Your task to perform on an android device: toggle show notifications on the lock screen Image 0: 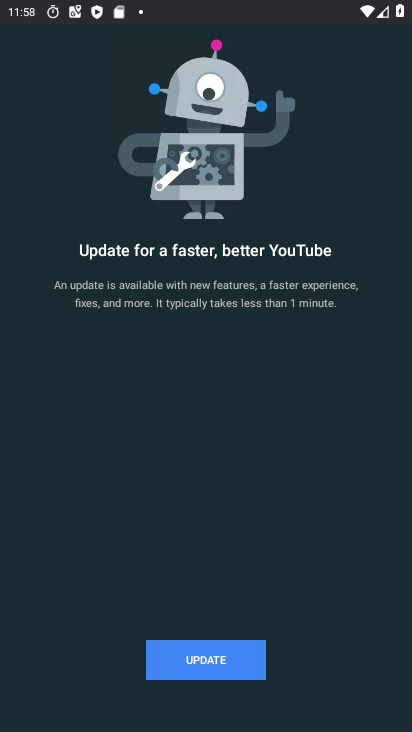
Step 0: press back button
Your task to perform on an android device: toggle show notifications on the lock screen Image 1: 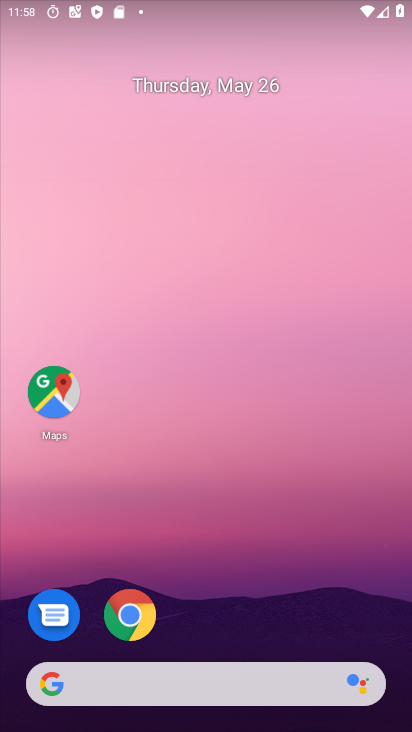
Step 1: drag from (268, 641) to (210, 210)
Your task to perform on an android device: toggle show notifications on the lock screen Image 2: 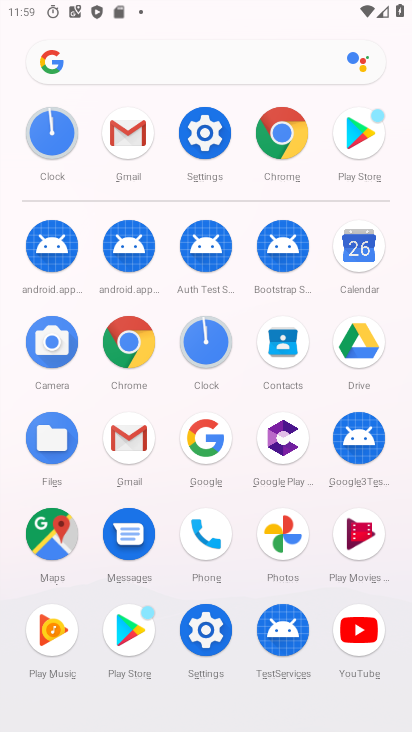
Step 2: click (216, 147)
Your task to perform on an android device: toggle show notifications on the lock screen Image 3: 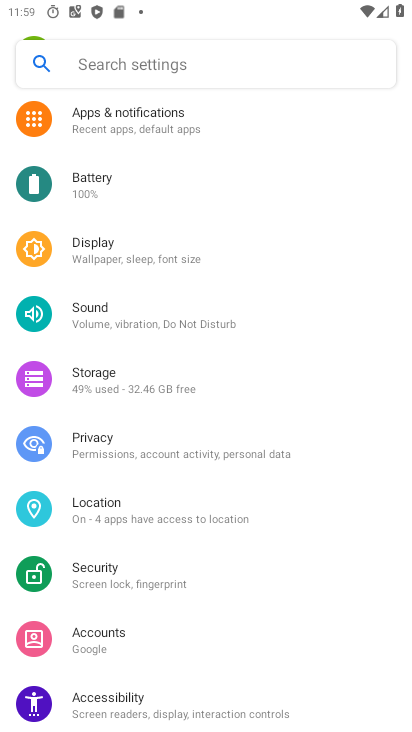
Step 3: click (167, 116)
Your task to perform on an android device: toggle show notifications on the lock screen Image 4: 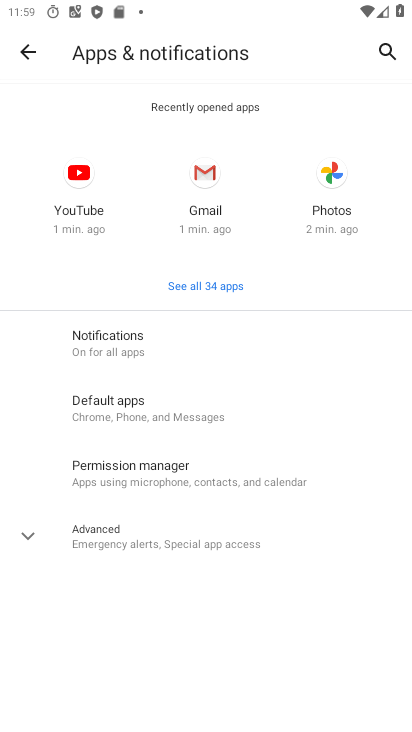
Step 4: click (151, 338)
Your task to perform on an android device: toggle show notifications on the lock screen Image 5: 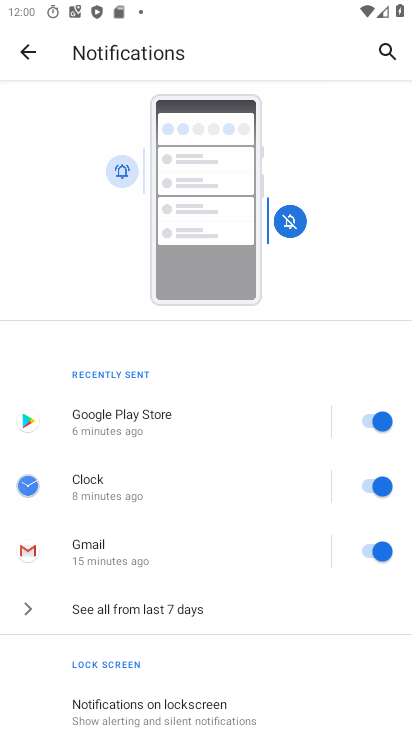
Step 5: click (171, 717)
Your task to perform on an android device: toggle show notifications on the lock screen Image 6: 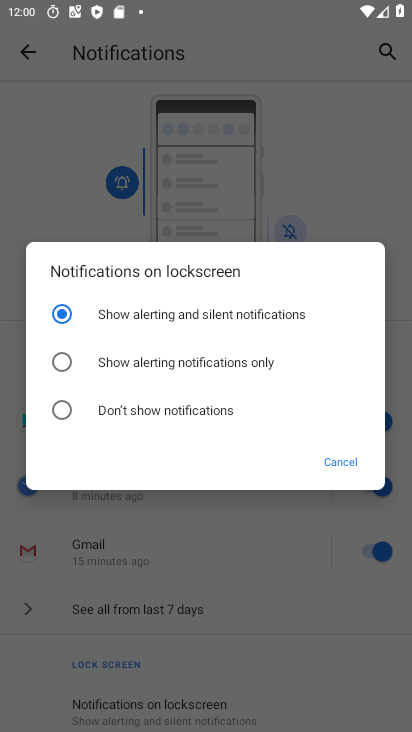
Step 6: click (243, 365)
Your task to perform on an android device: toggle show notifications on the lock screen Image 7: 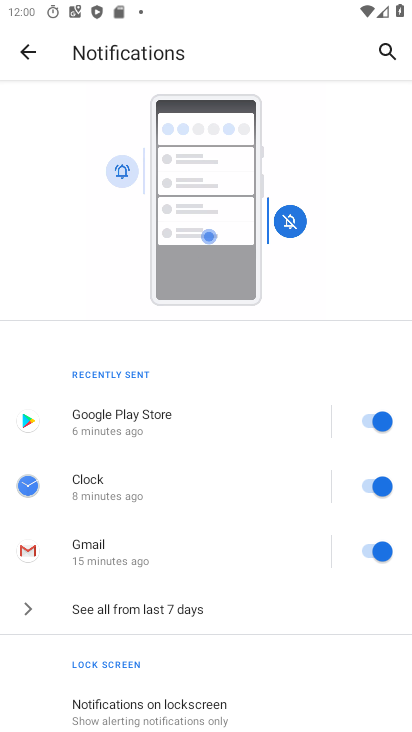
Step 7: task complete